Your task to perform on an android device: check data usage Image 0: 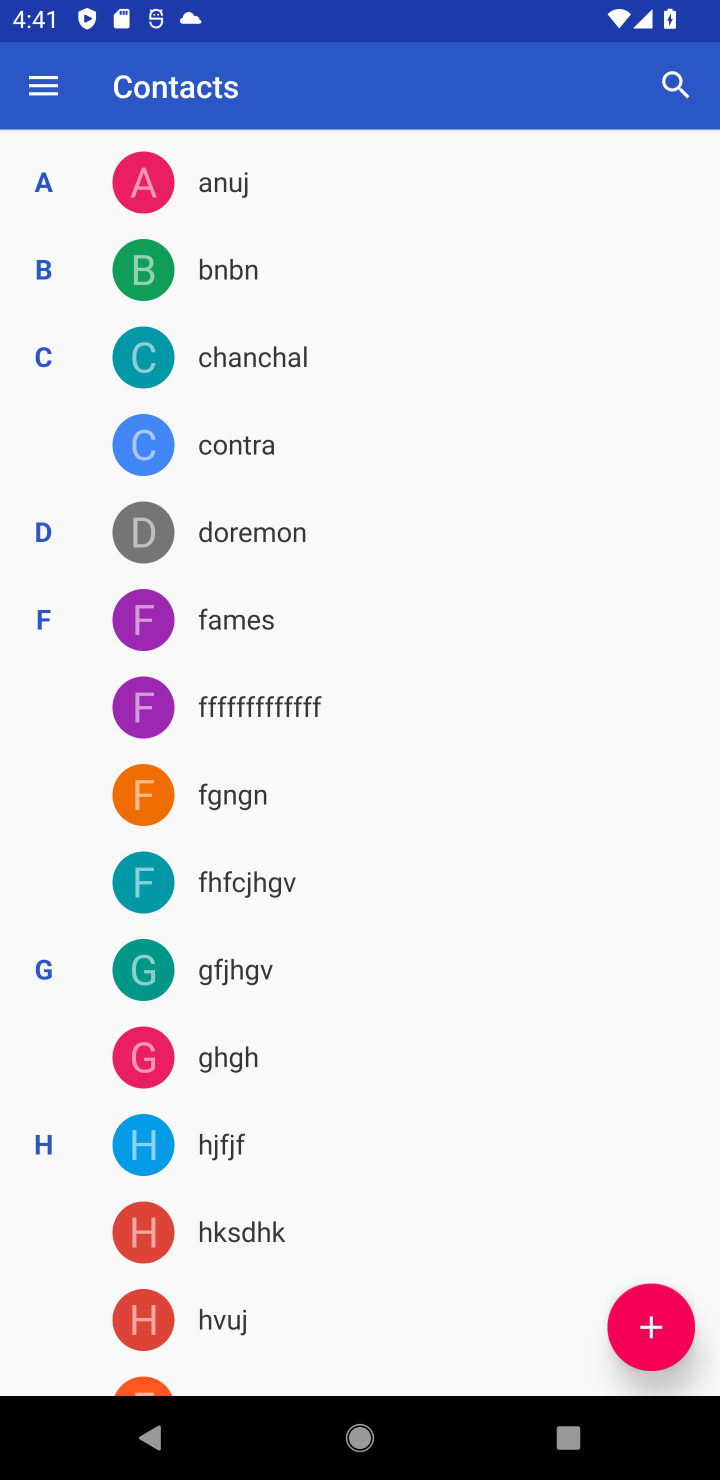
Step 0: press home button
Your task to perform on an android device: check data usage Image 1: 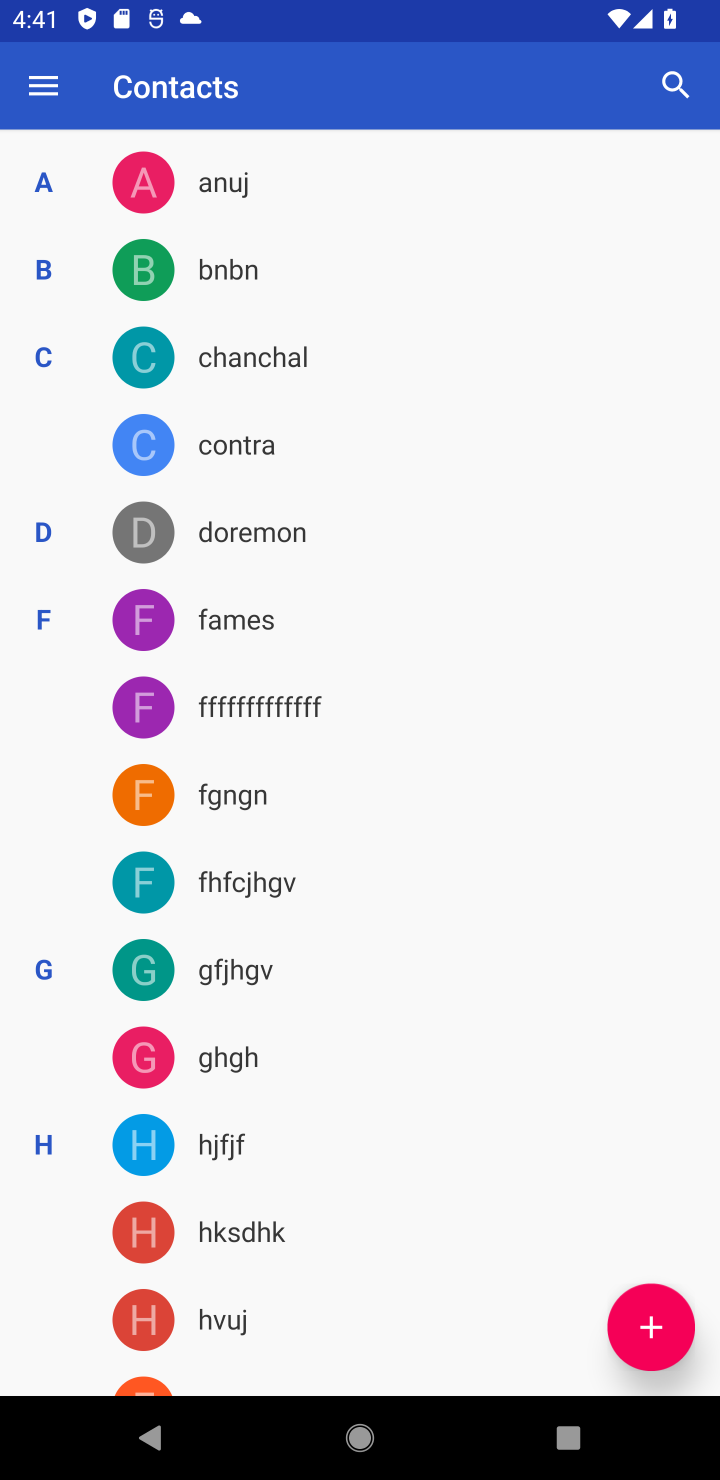
Step 1: drag from (342, 1049) to (550, 320)
Your task to perform on an android device: check data usage Image 2: 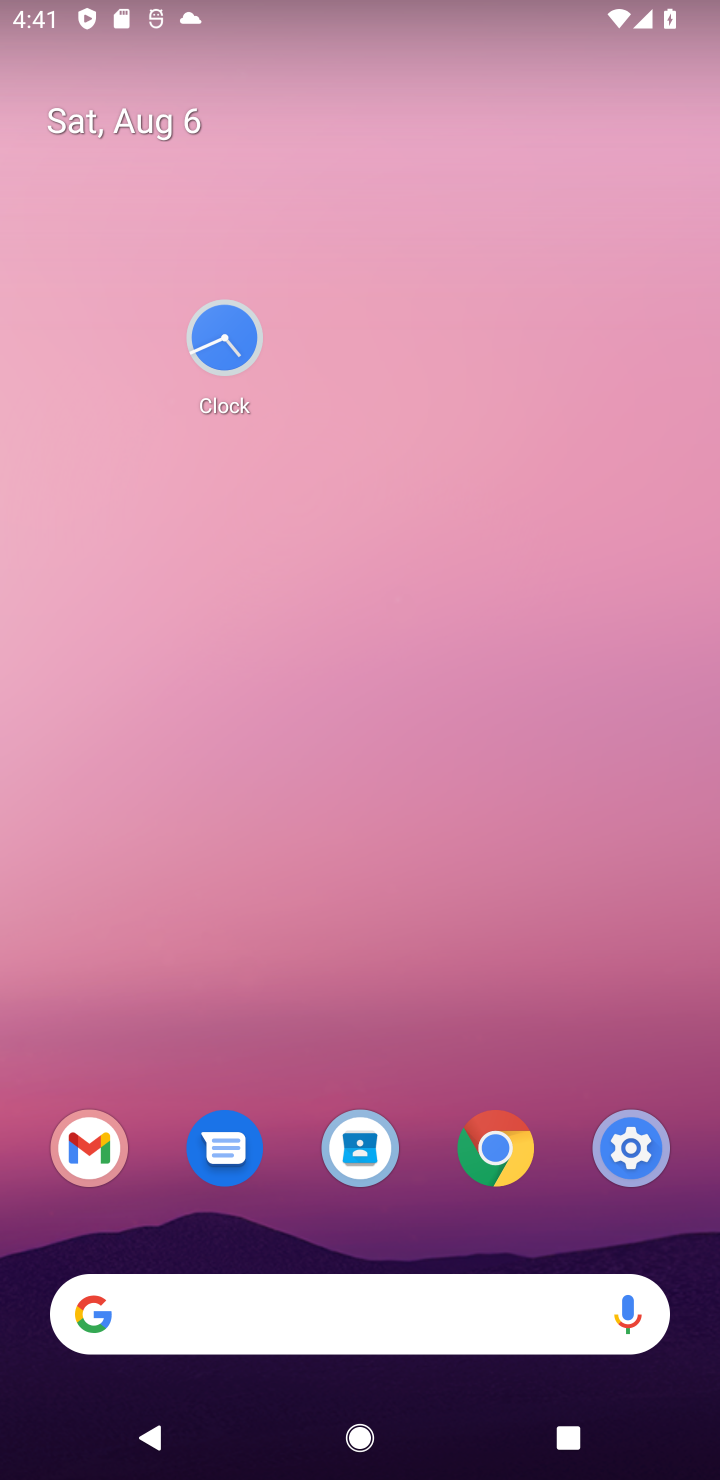
Step 2: click (622, 1144)
Your task to perform on an android device: check data usage Image 3: 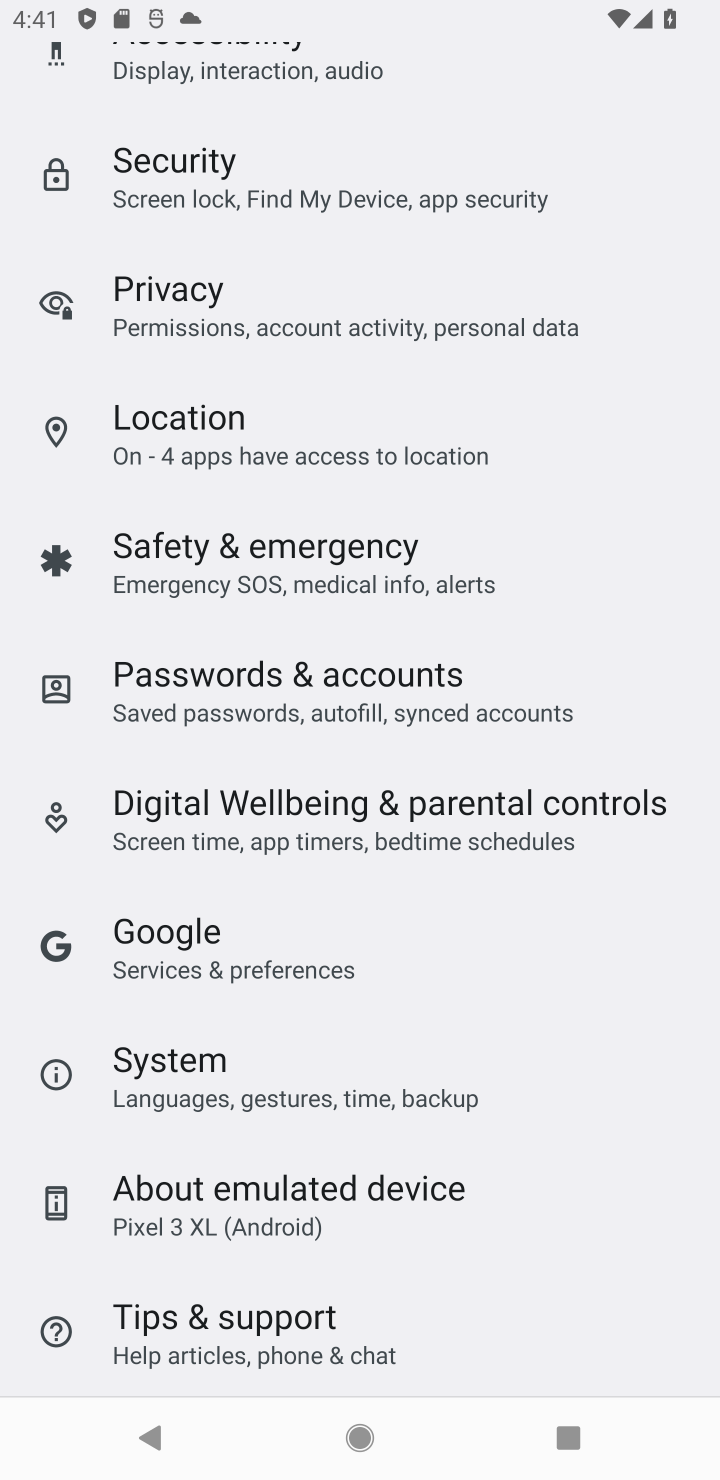
Step 3: drag from (353, 469) to (330, 1442)
Your task to perform on an android device: check data usage Image 4: 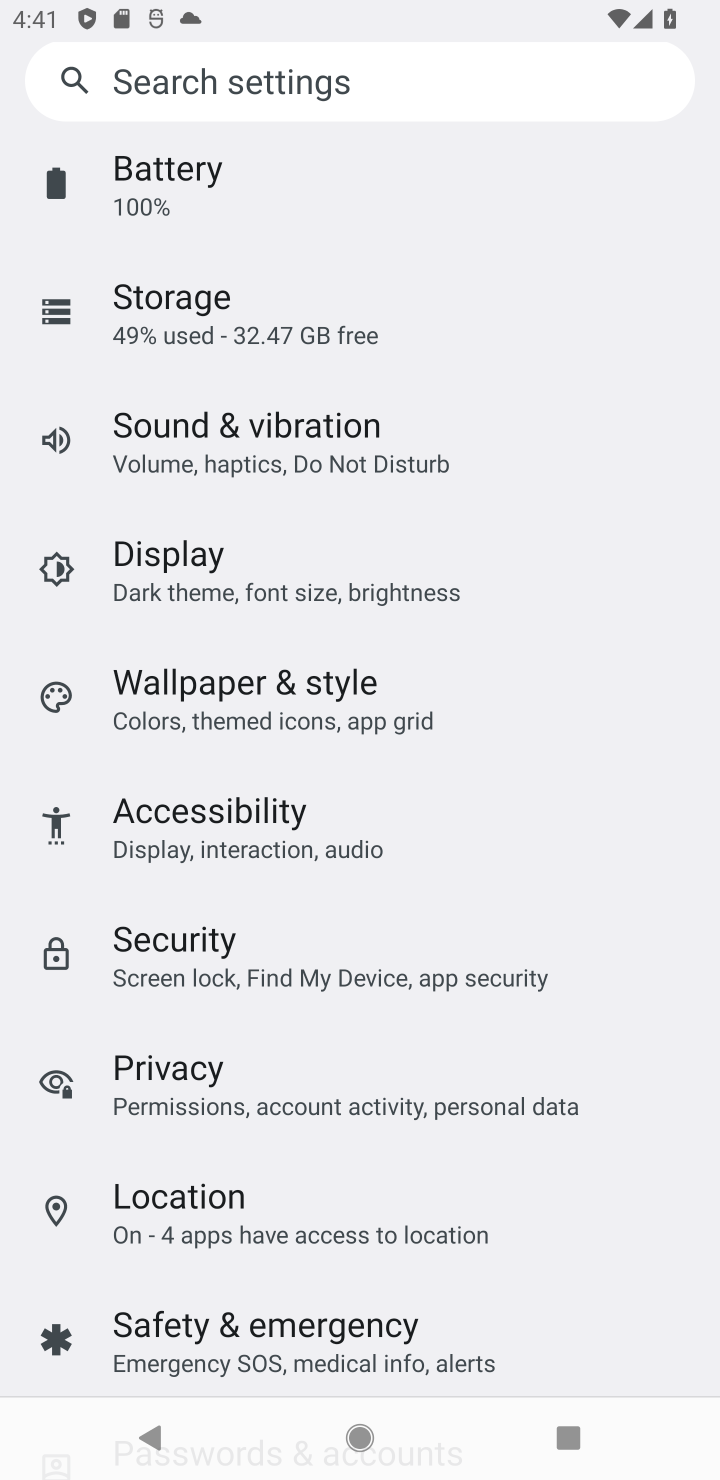
Step 4: drag from (396, 596) to (562, 1452)
Your task to perform on an android device: check data usage Image 5: 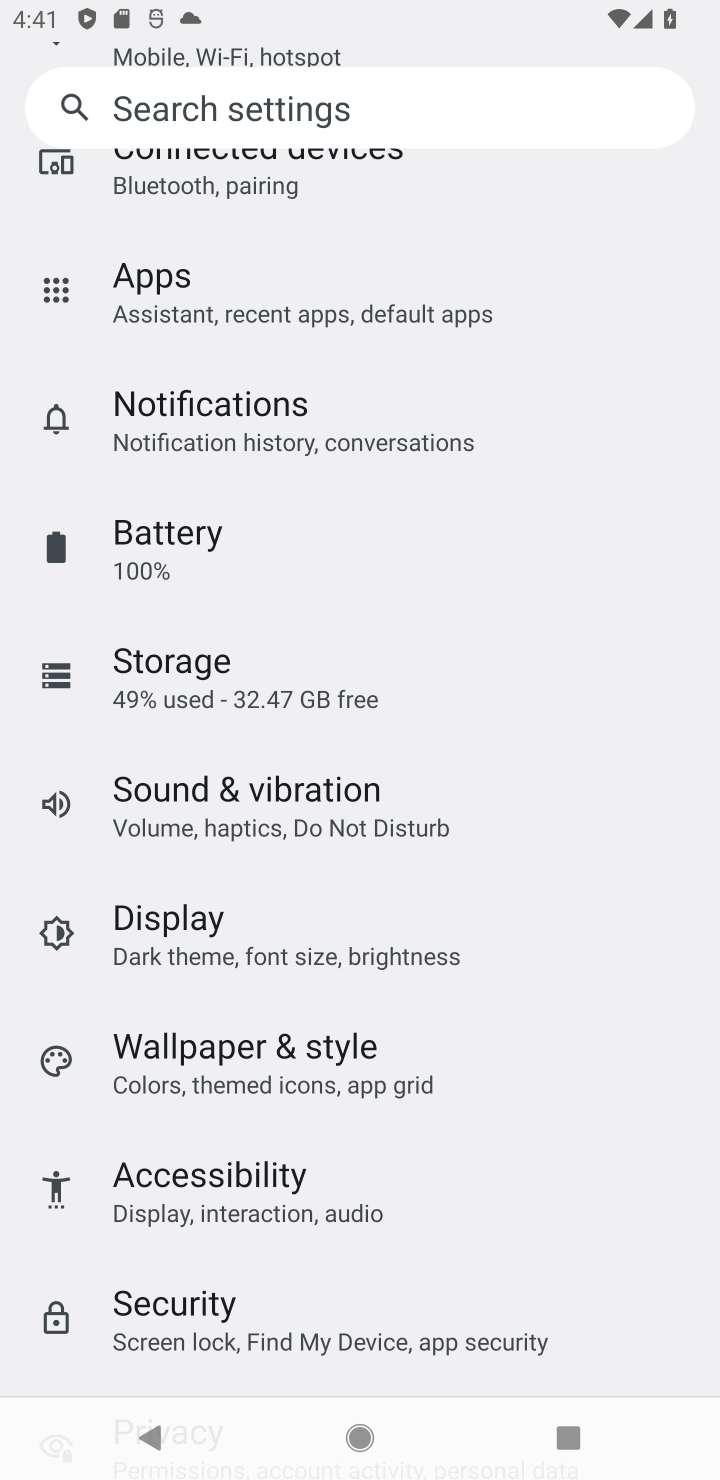
Step 5: drag from (377, 563) to (500, 1459)
Your task to perform on an android device: check data usage Image 6: 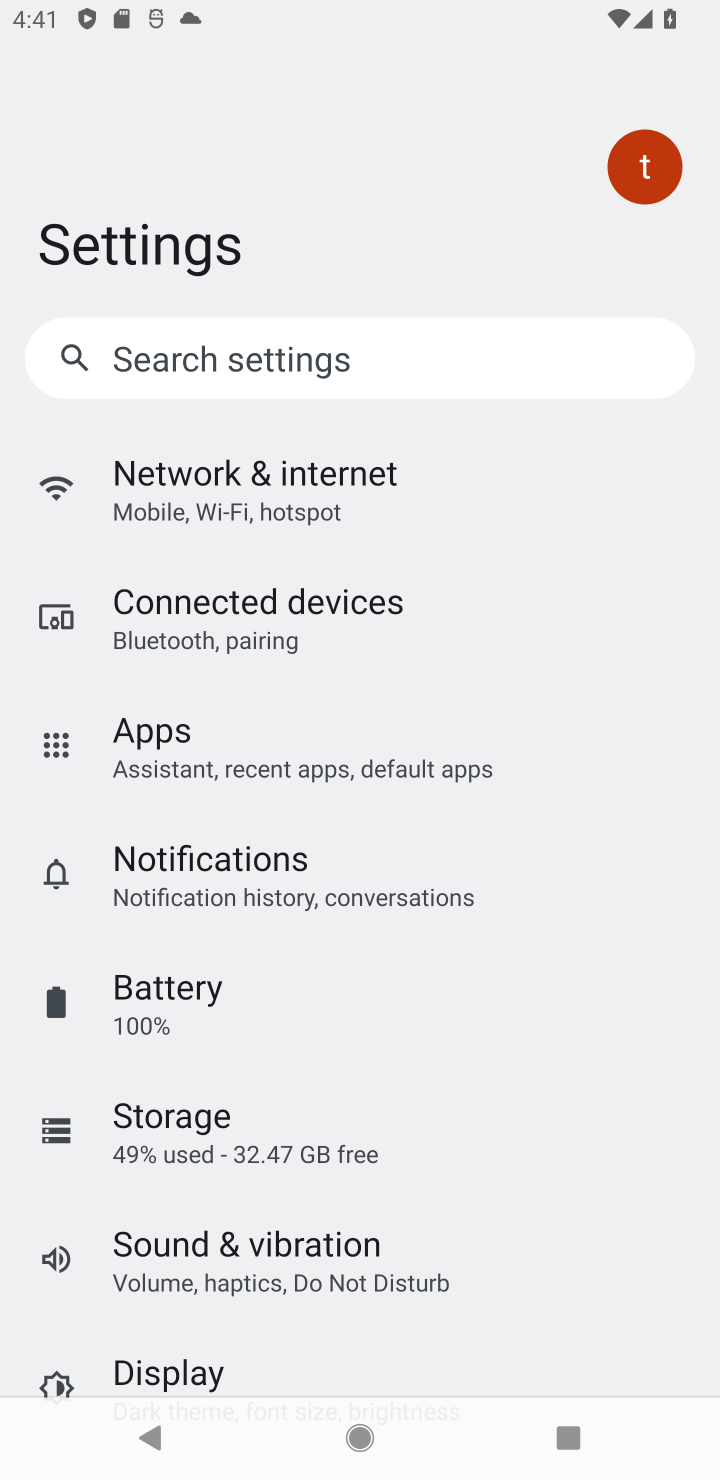
Step 6: click (349, 515)
Your task to perform on an android device: check data usage Image 7: 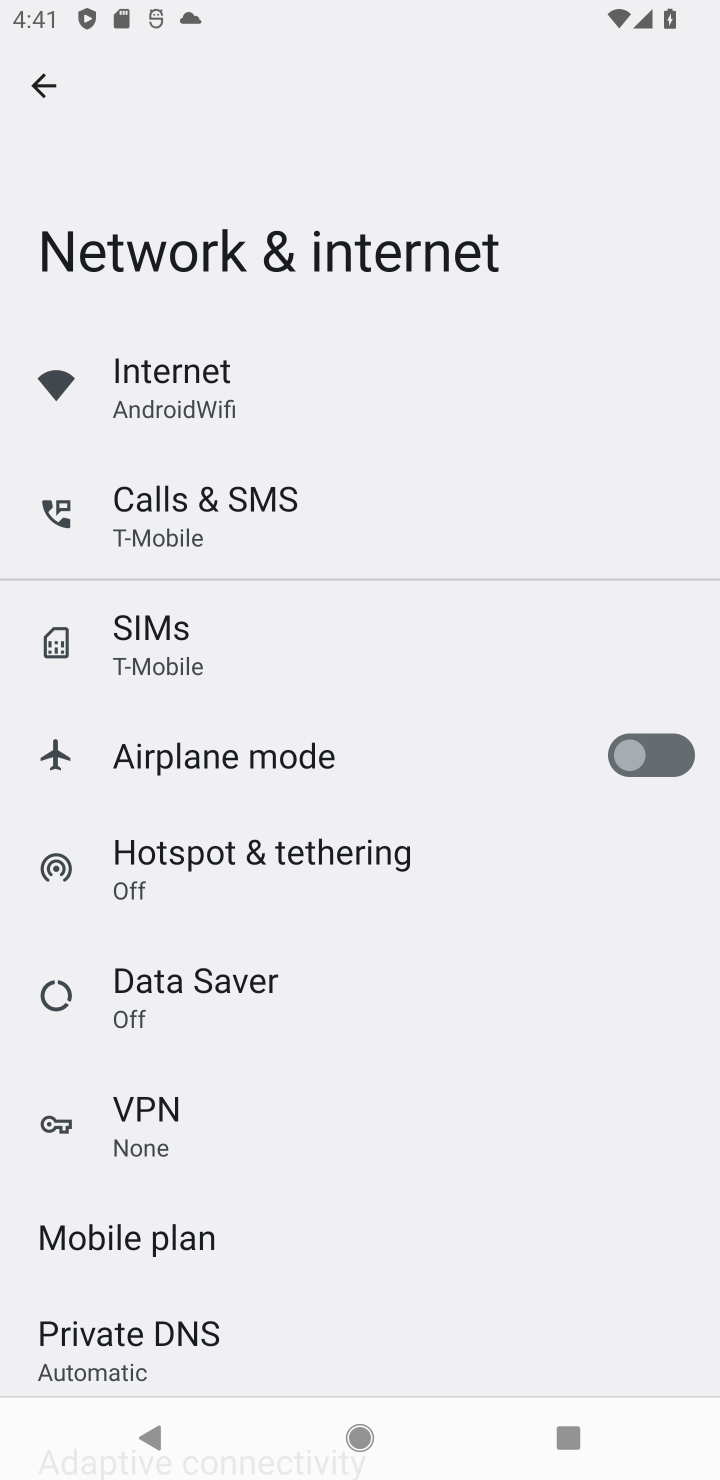
Step 7: drag from (342, 1267) to (394, 555)
Your task to perform on an android device: check data usage Image 8: 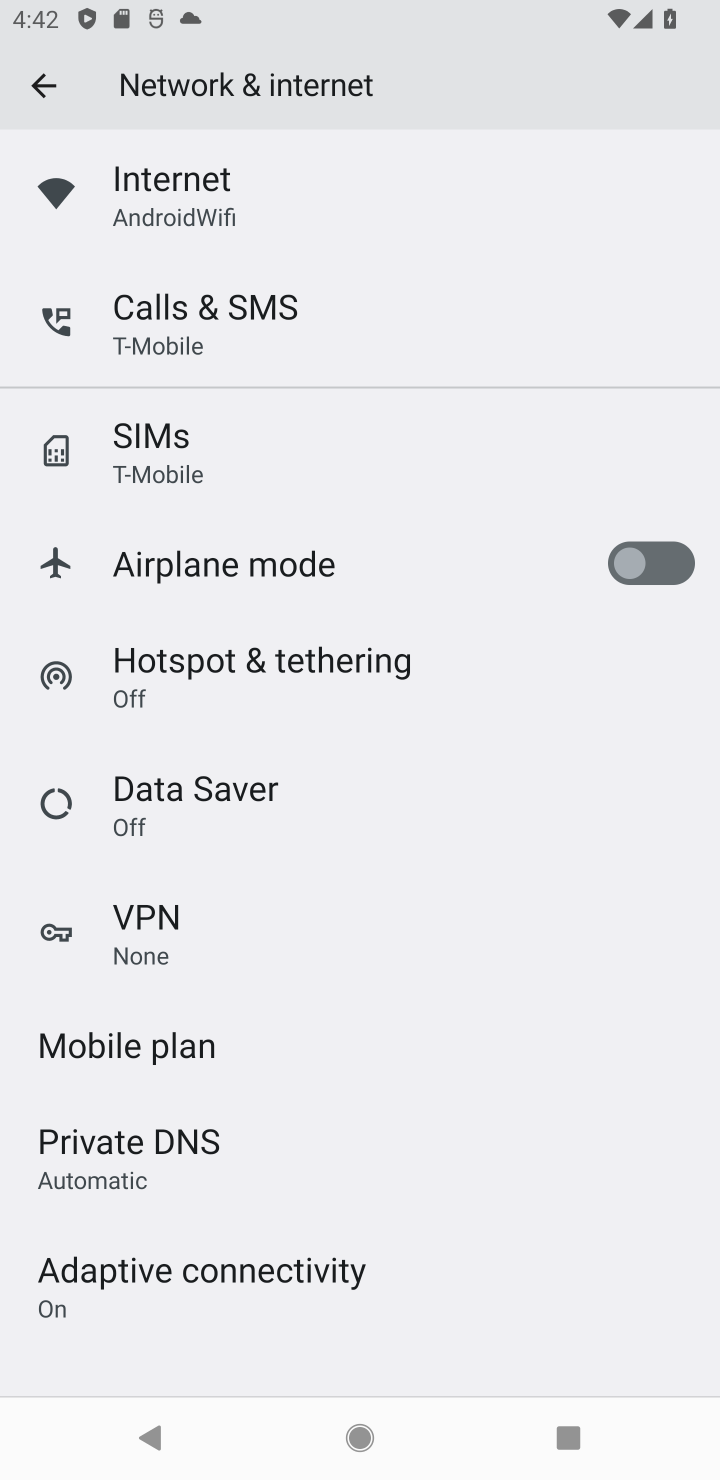
Step 8: click (221, 794)
Your task to perform on an android device: check data usage Image 9: 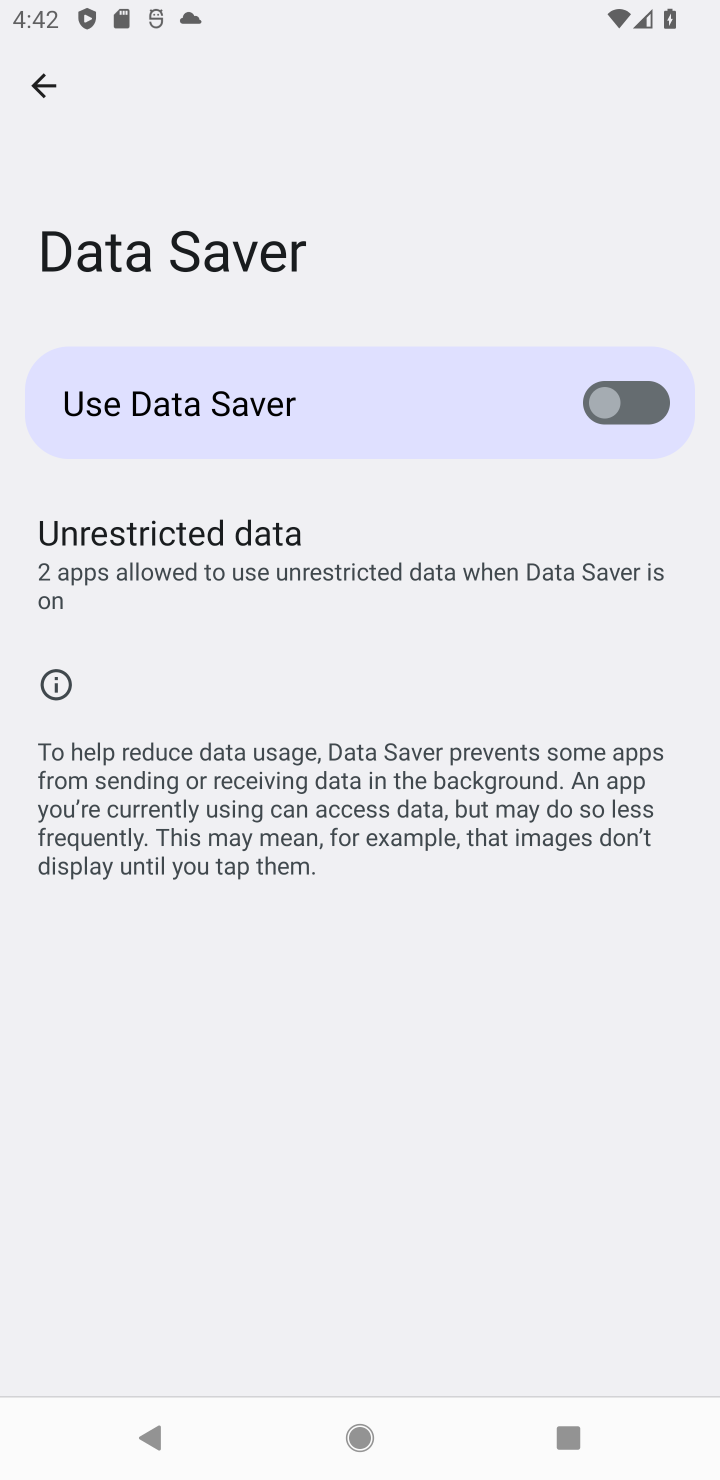
Step 9: click (44, 83)
Your task to perform on an android device: check data usage Image 10: 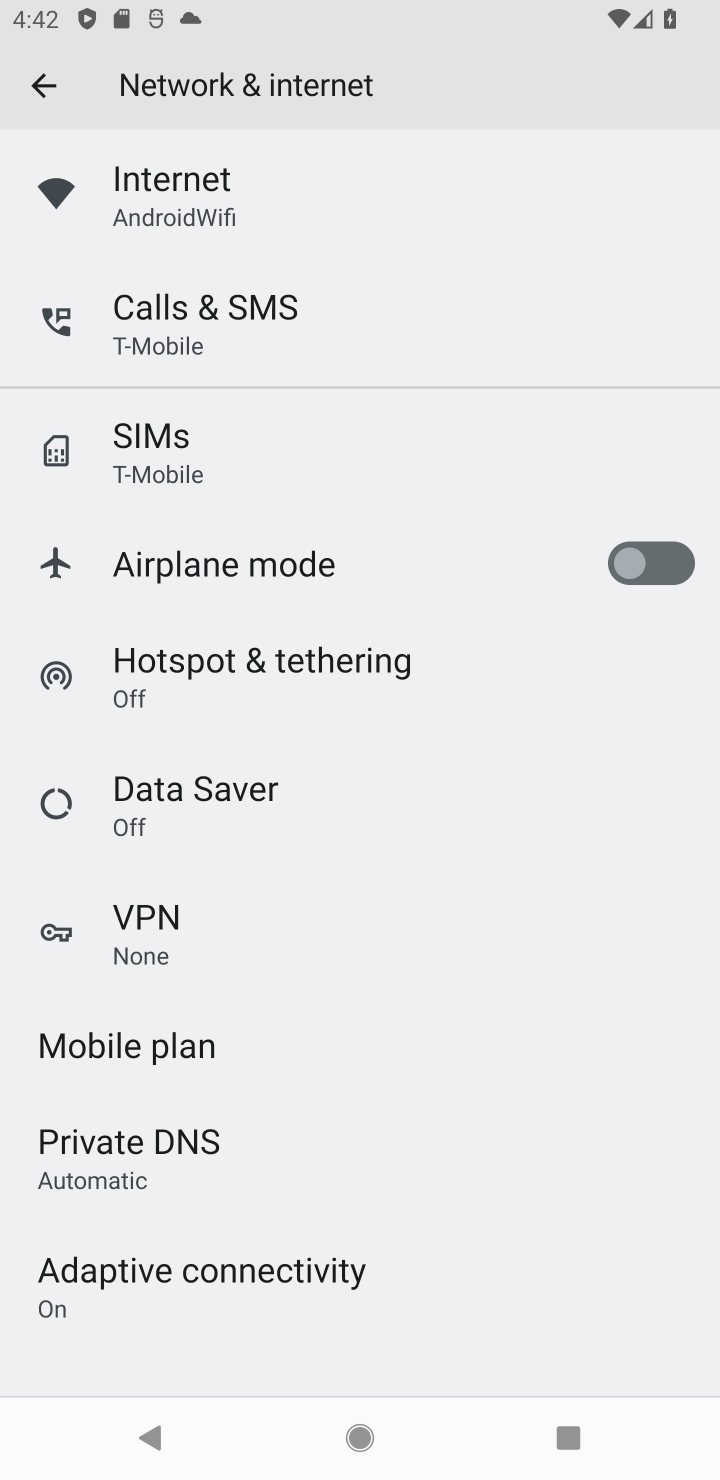
Step 10: click (154, 443)
Your task to perform on an android device: check data usage Image 11: 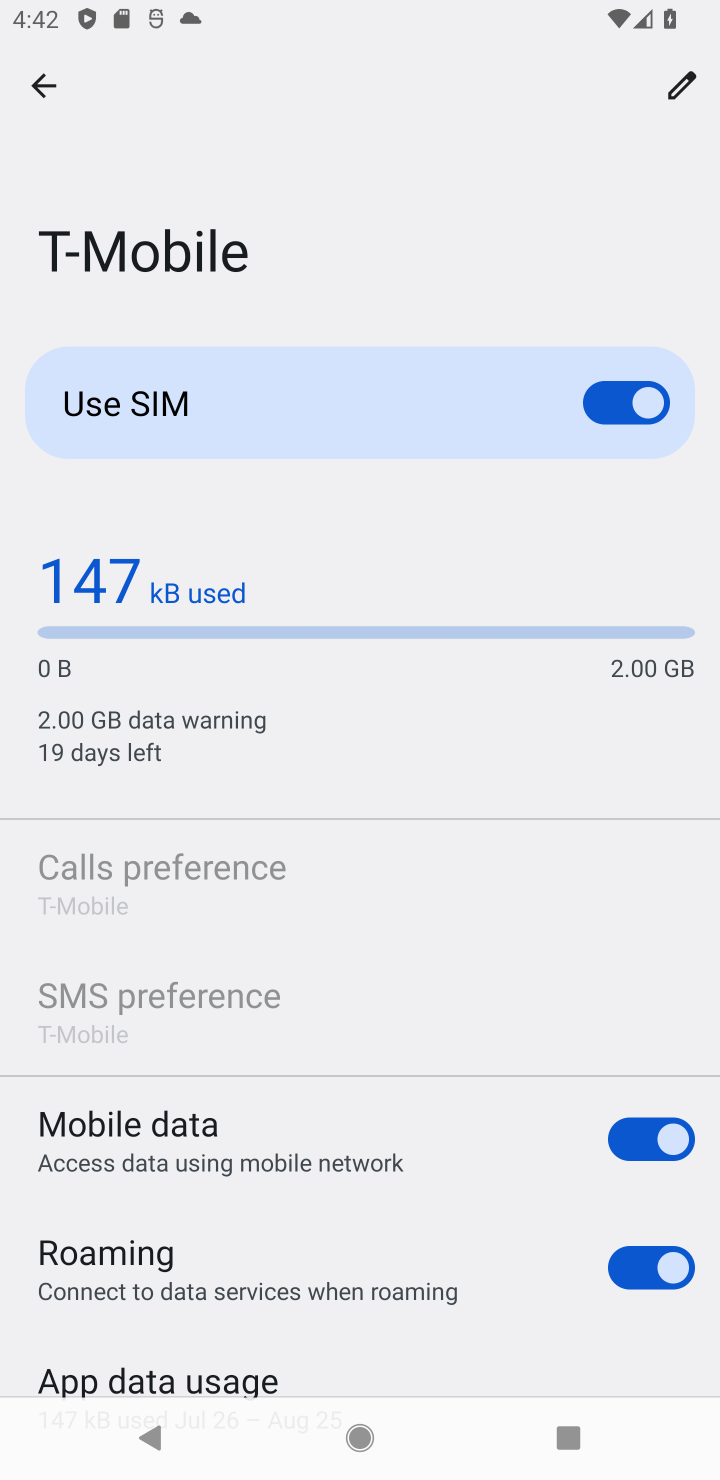
Step 11: task complete